Your task to perform on an android device: turn on showing notifications on the lock screen Image 0: 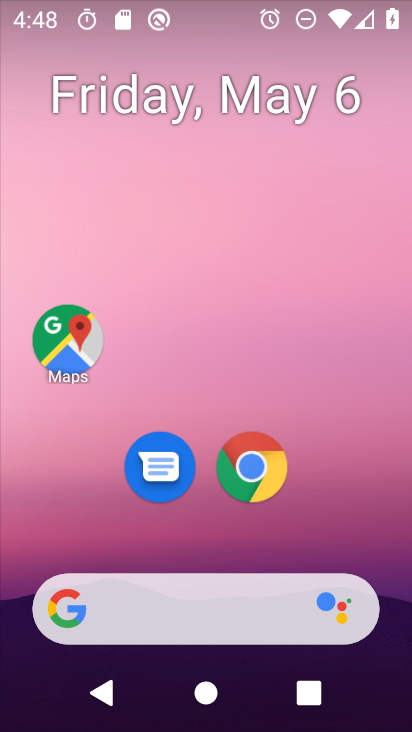
Step 0: drag from (314, 561) to (362, 199)
Your task to perform on an android device: turn on showing notifications on the lock screen Image 1: 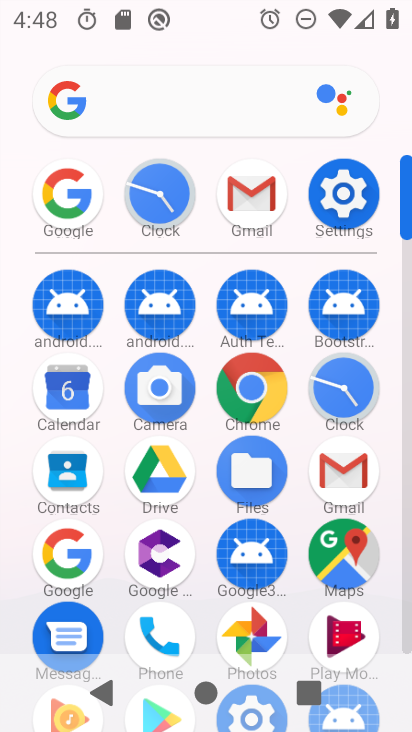
Step 1: click (344, 219)
Your task to perform on an android device: turn on showing notifications on the lock screen Image 2: 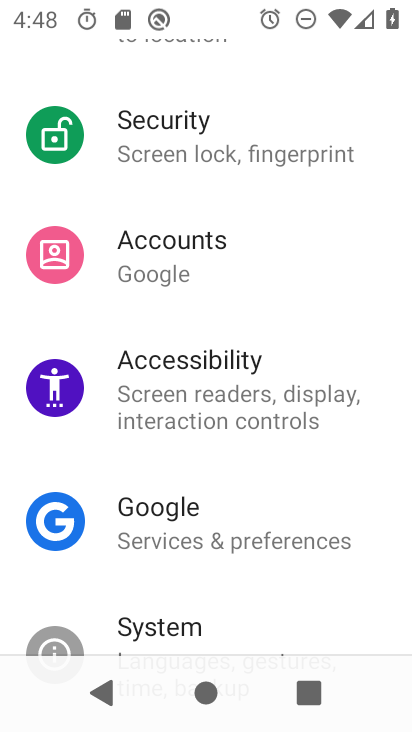
Step 2: drag from (270, 274) to (258, 637)
Your task to perform on an android device: turn on showing notifications on the lock screen Image 3: 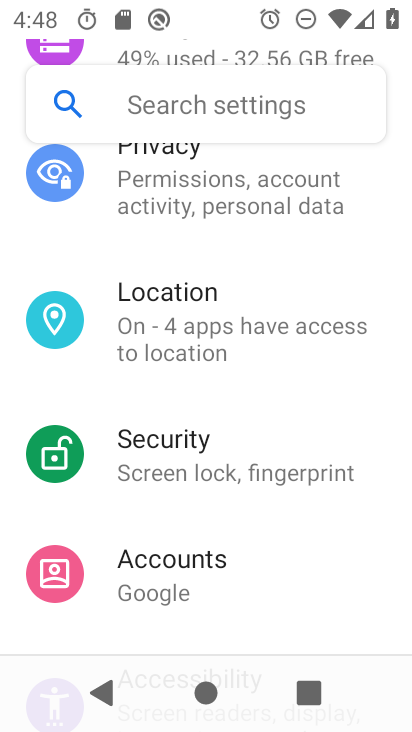
Step 3: drag from (282, 378) to (298, 683)
Your task to perform on an android device: turn on showing notifications on the lock screen Image 4: 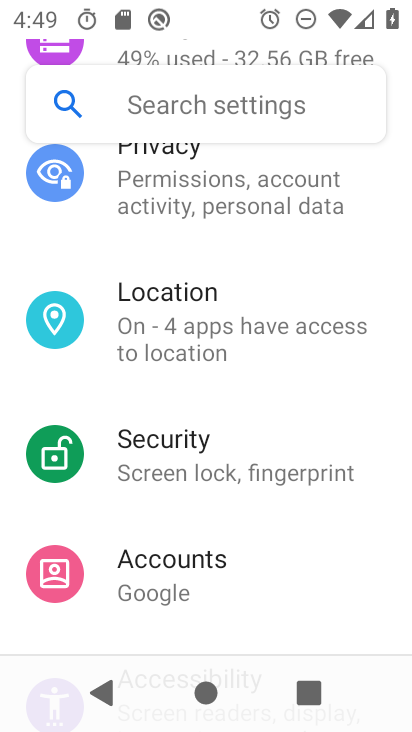
Step 4: drag from (280, 272) to (240, 697)
Your task to perform on an android device: turn on showing notifications on the lock screen Image 5: 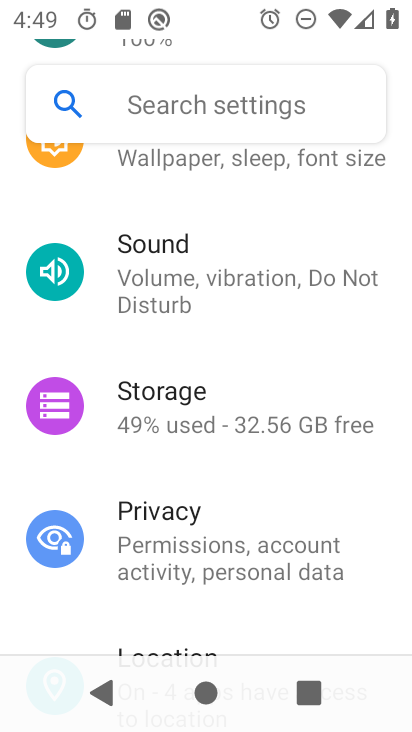
Step 5: drag from (266, 245) to (229, 565)
Your task to perform on an android device: turn on showing notifications on the lock screen Image 6: 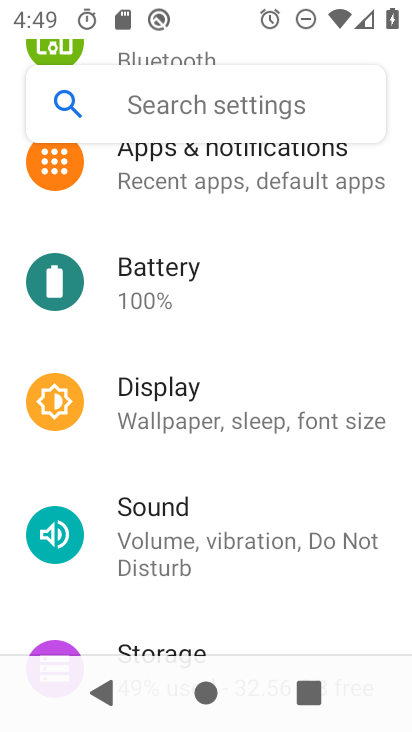
Step 6: drag from (280, 256) to (258, 639)
Your task to perform on an android device: turn on showing notifications on the lock screen Image 7: 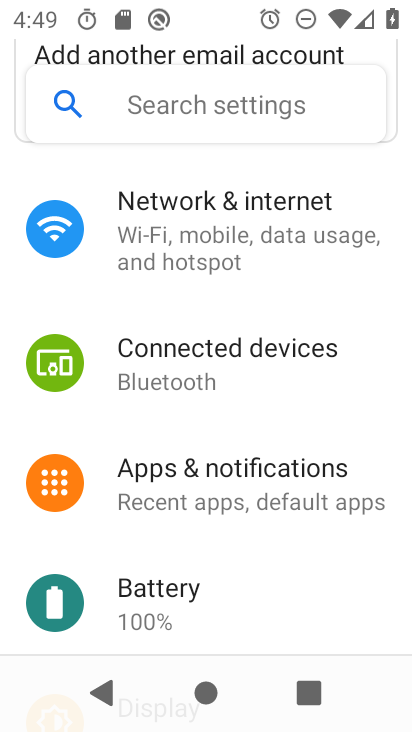
Step 7: click (266, 502)
Your task to perform on an android device: turn on showing notifications on the lock screen Image 8: 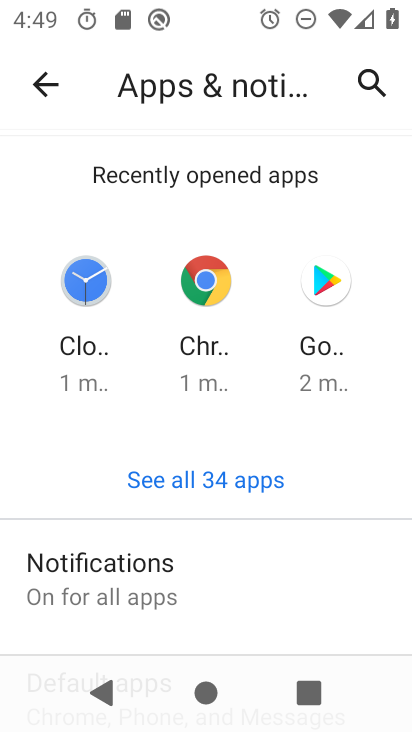
Step 8: click (119, 597)
Your task to perform on an android device: turn on showing notifications on the lock screen Image 9: 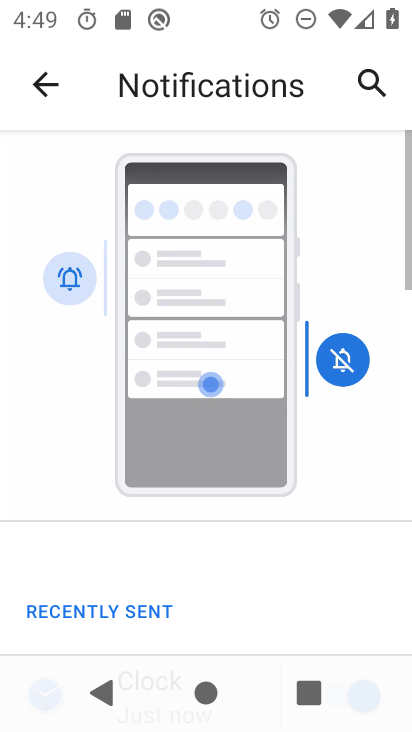
Step 9: drag from (206, 613) to (379, 170)
Your task to perform on an android device: turn on showing notifications on the lock screen Image 10: 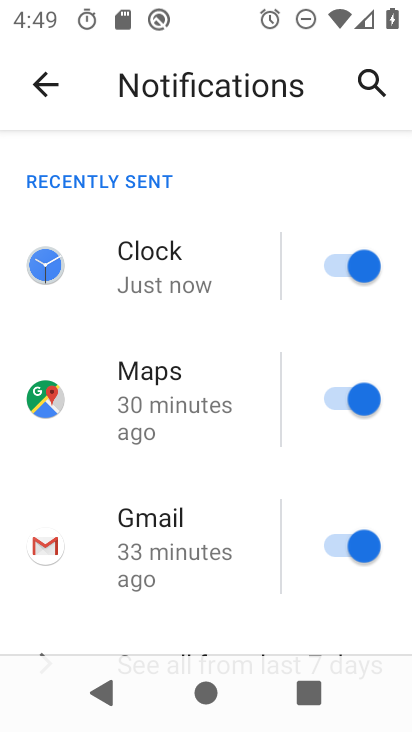
Step 10: drag from (236, 563) to (308, 171)
Your task to perform on an android device: turn on showing notifications on the lock screen Image 11: 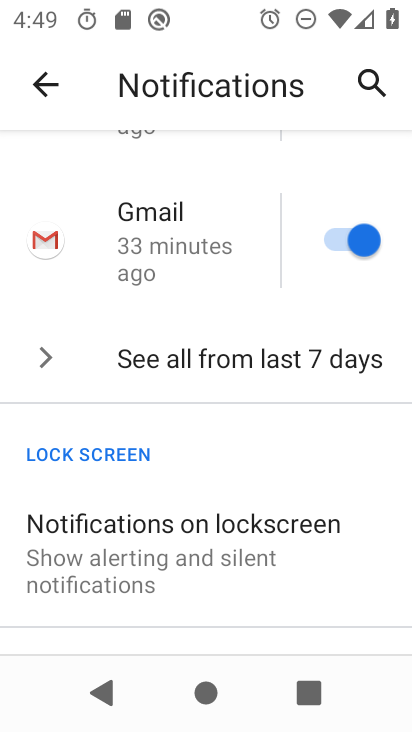
Step 11: click (144, 578)
Your task to perform on an android device: turn on showing notifications on the lock screen Image 12: 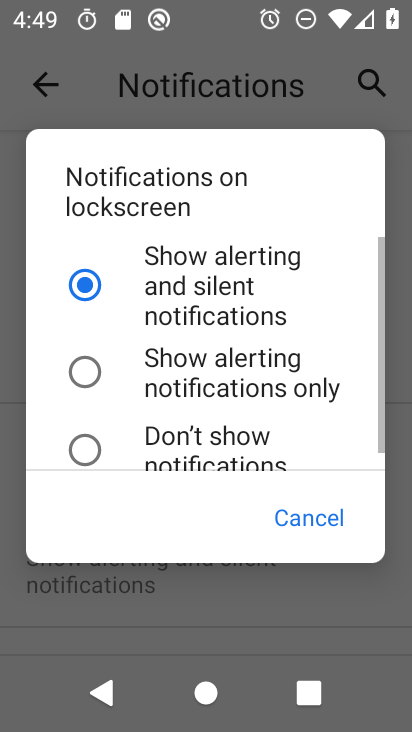
Step 12: task complete